Your task to perform on an android device: snooze an email in the gmail app Image 0: 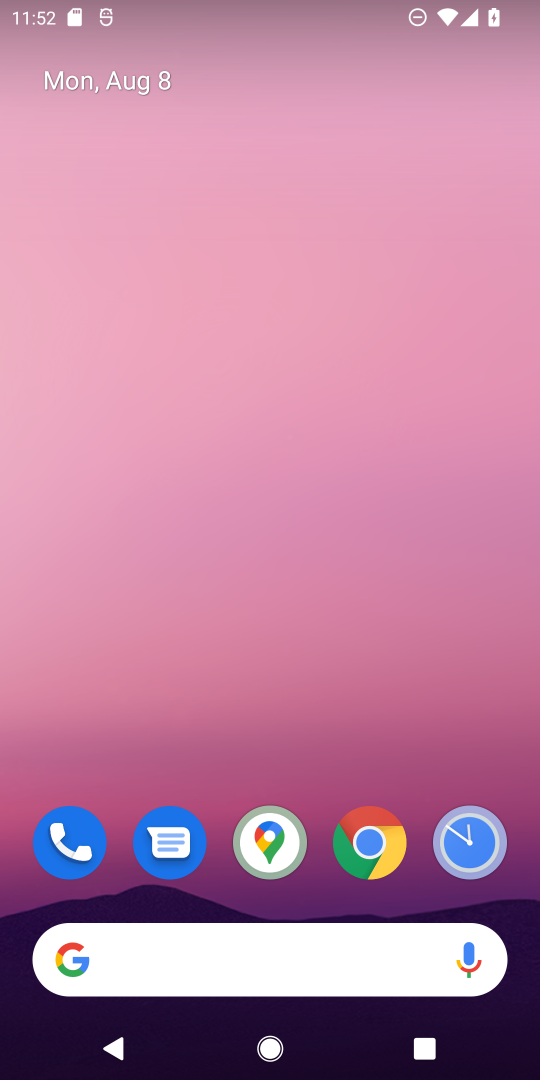
Step 0: drag from (310, 791) to (260, 112)
Your task to perform on an android device: snooze an email in the gmail app Image 1: 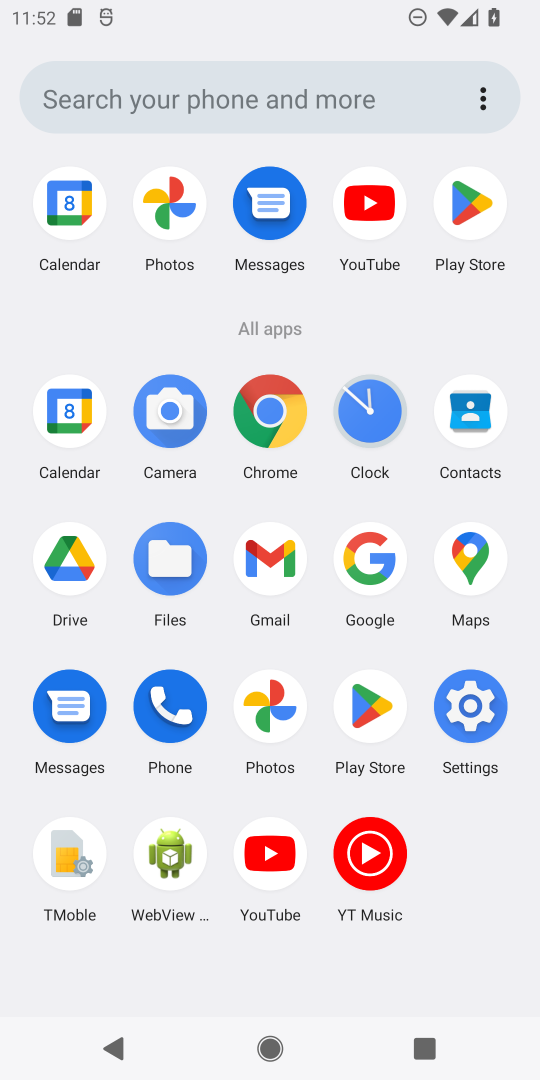
Step 1: click (270, 579)
Your task to perform on an android device: snooze an email in the gmail app Image 2: 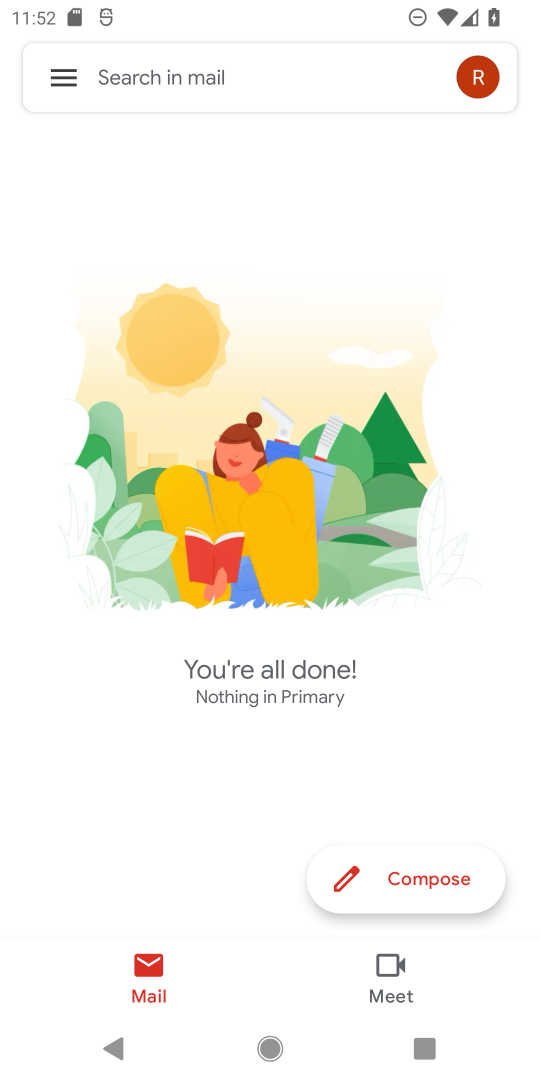
Step 2: click (82, 79)
Your task to perform on an android device: snooze an email in the gmail app Image 3: 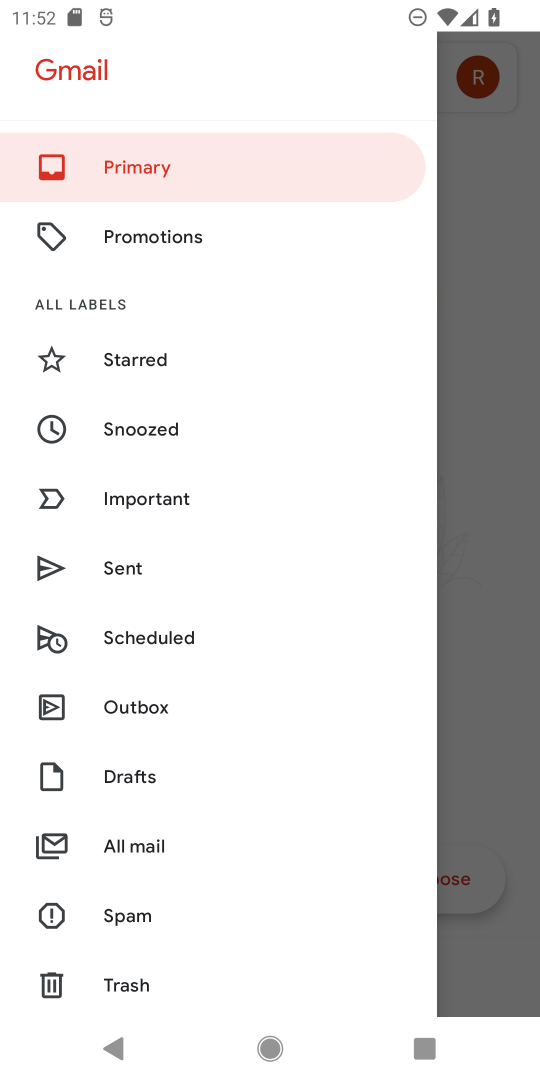
Step 3: click (130, 847)
Your task to perform on an android device: snooze an email in the gmail app Image 4: 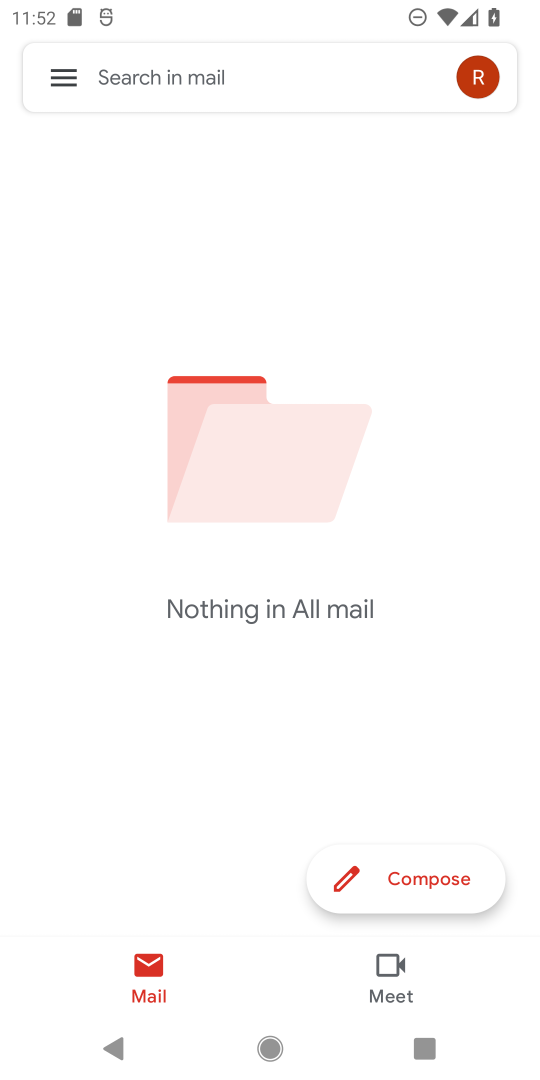
Step 4: task complete